Your task to perform on an android device: Open Amazon Image 0: 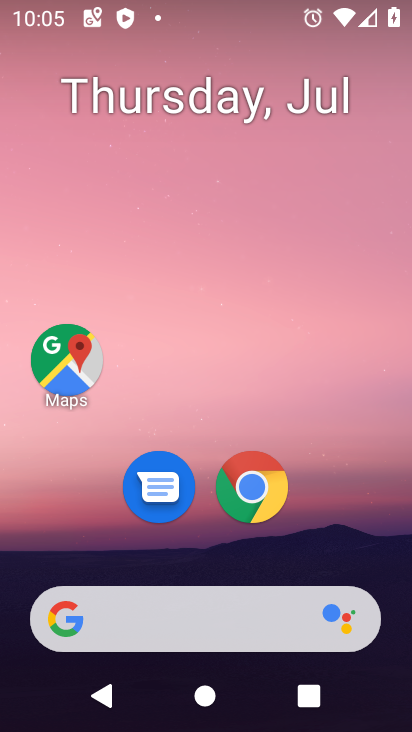
Step 0: drag from (209, 690) to (311, 120)
Your task to perform on an android device: Open Amazon Image 1: 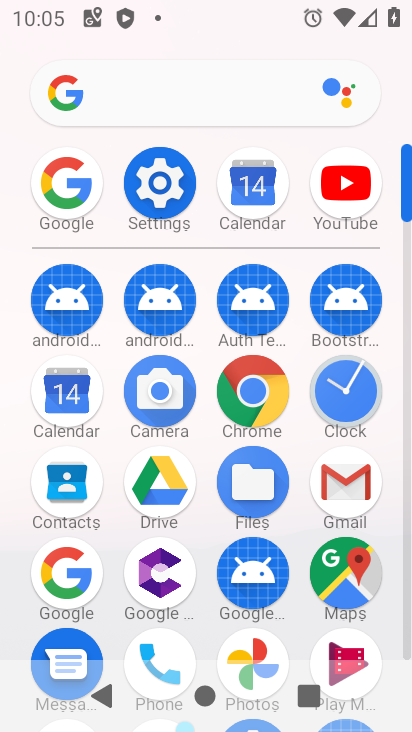
Step 1: click (256, 419)
Your task to perform on an android device: Open Amazon Image 2: 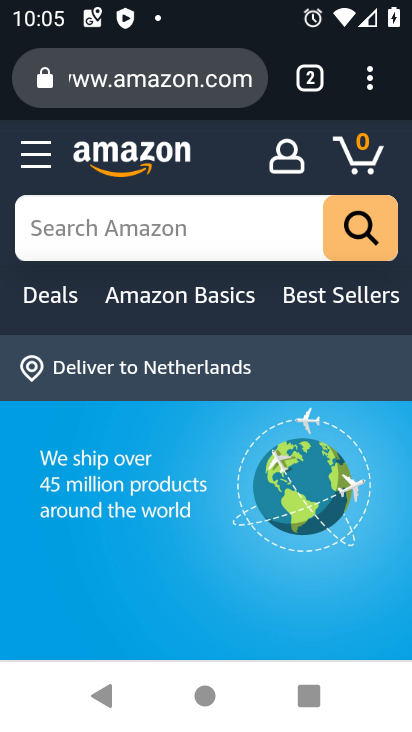
Step 2: task complete